Your task to perform on an android device: refresh tabs in the chrome app Image 0: 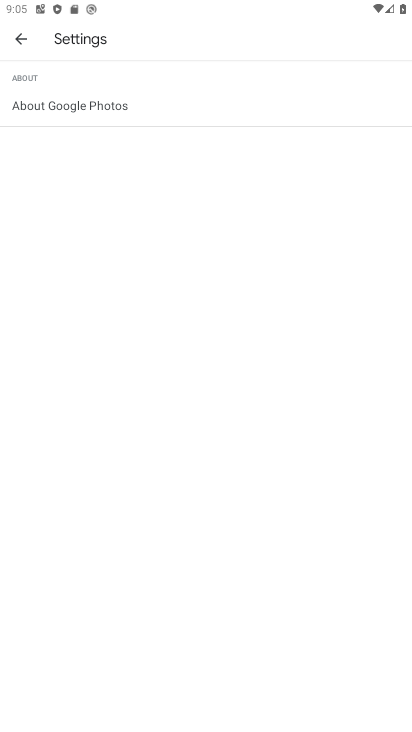
Step 0: press home button
Your task to perform on an android device: refresh tabs in the chrome app Image 1: 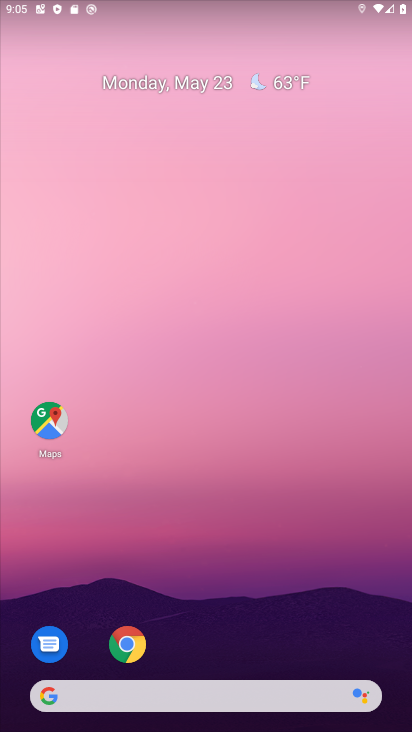
Step 1: click (120, 641)
Your task to perform on an android device: refresh tabs in the chrome app Image 2: 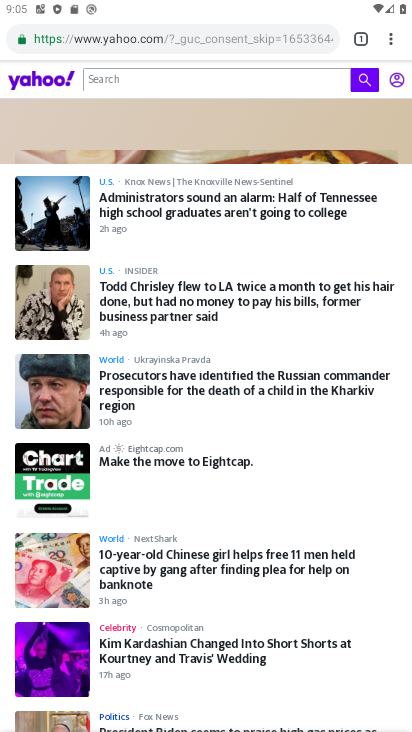
Step 2: click (393, 41)
Your task to perform on an android device: refresh tabs in the chrome app Image 3: 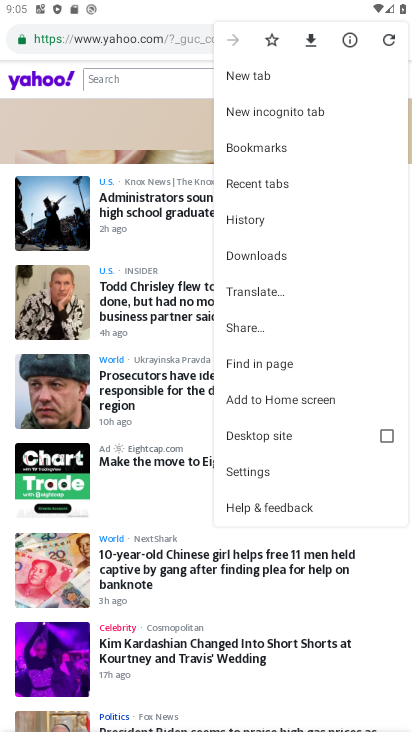
Step 3: click (393, 41)
Your task to perform on an android device: refresh tabs in the chrome app Image 4: 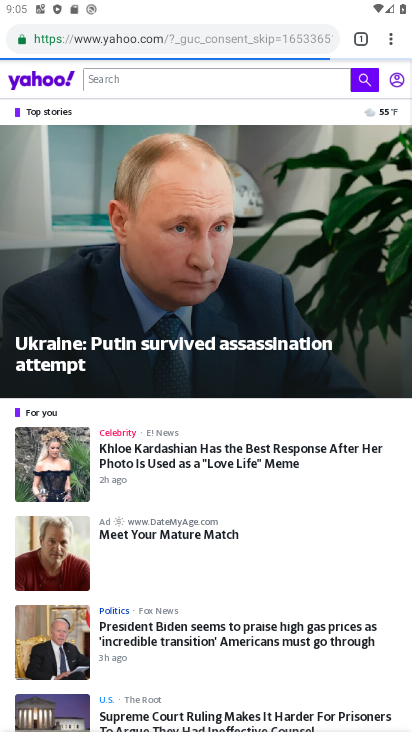
Step 4: task complete